Your task to perform on an android device: stop showing notifications on the lock screen Image 0: 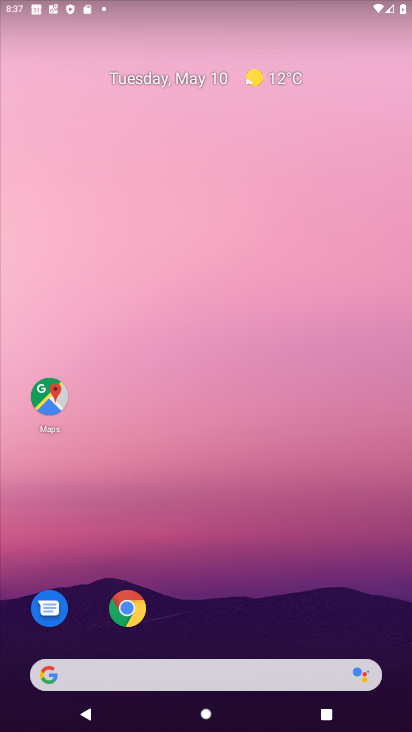
Step 0: drag from (203, 666) to (147, 163)
Your task to perform on an android device: stop showing notifications on the lock screen Image 1: 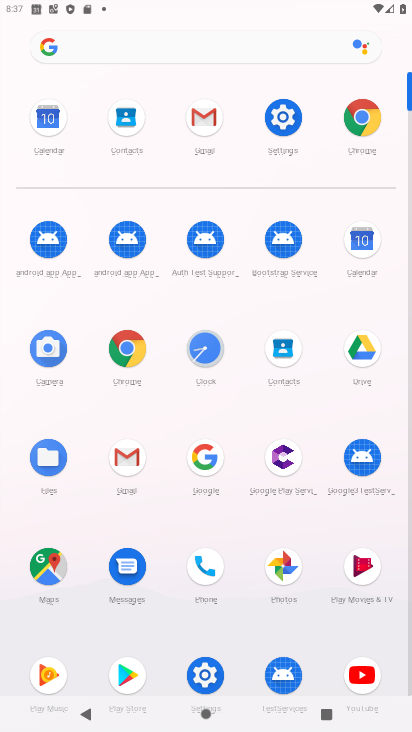
Step 1: click (283, 126)
Your task to perform on an android device: stop showing notifications on the lock screen Image 2: 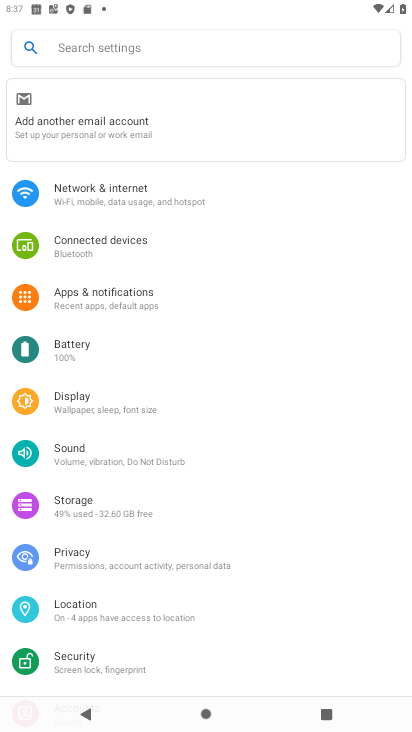
Step 2: click (137, 303)
Your task to perform on an android device: stop showing notifications on the lock screen Image 3: 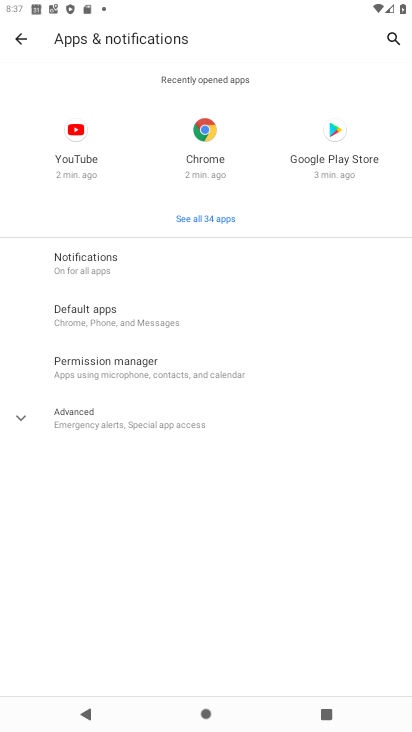
Step 3: click (108, 269)
Your task to perform on an android device: stop showing notifications on the lock screen Image 4: 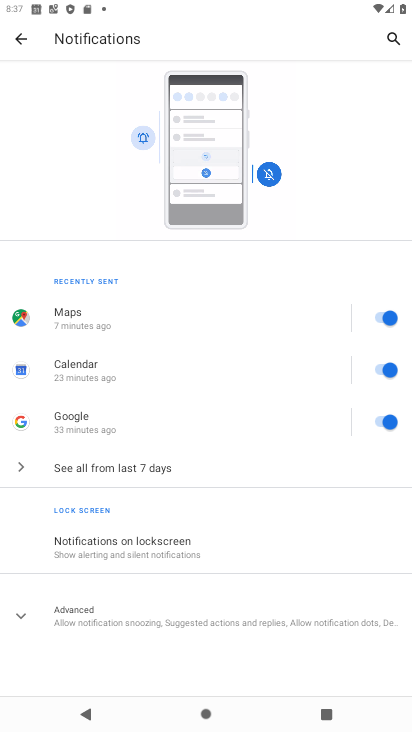
Step 4: click (146, 537)
Your task to perform on an android device: stop showing notifications on the lock screen Image 5: 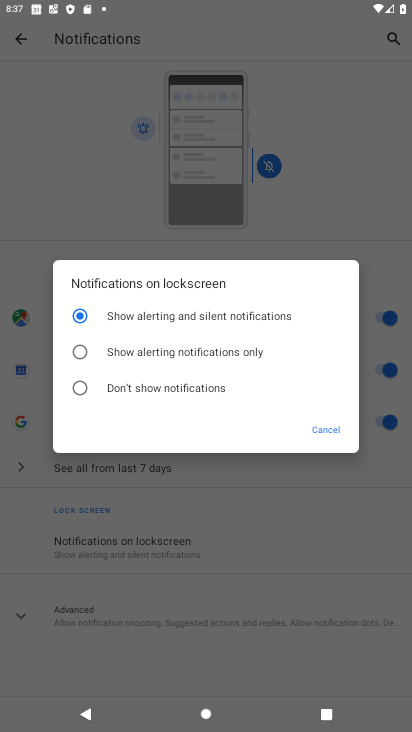
Step 5: click (127, 381)
Your task to perform on an android device: stop showing notifications on the lock screen Image 6: 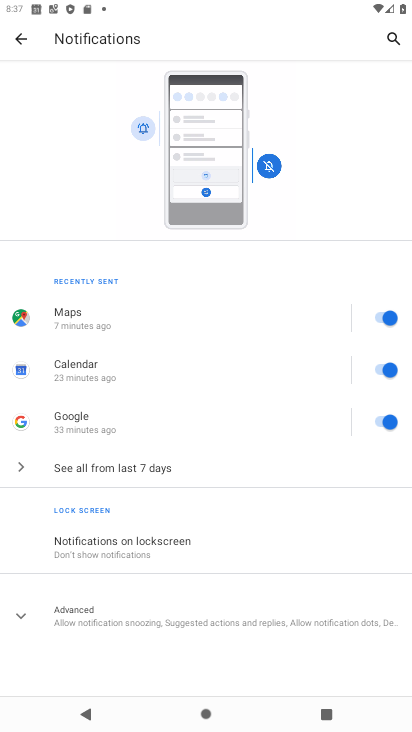
Step 6: task complete